Your task to perform on an android device: turn on translation in the chrome app Image 0: 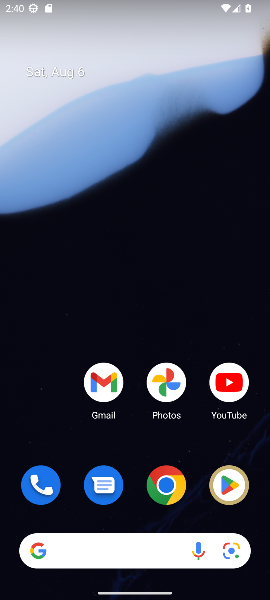
Step 0: press home button
Your task to perform on an android device: turn on translation in the chrome app Image 1: 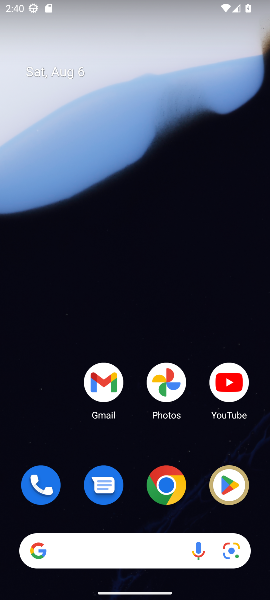
Step 1: click (163, 479)
Your task to perform on an android device: turn on translation in the chrome app Image 2: 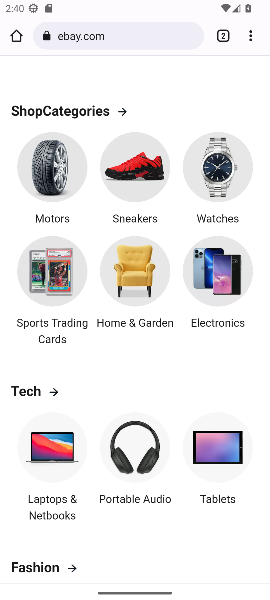
Step 2: click (250, 32)
Your task to perform on an android device: turn on translation in the chrome app Image 3: 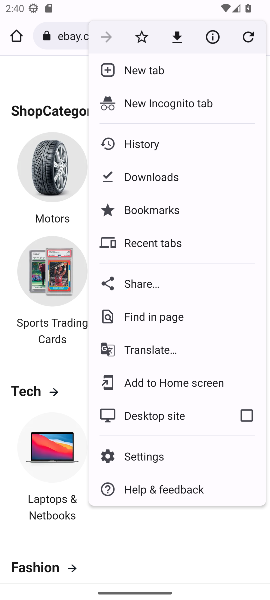
Step 3: click (172, 454)
Your task to perform on an android device: turn on translation in the chrome app Image 4: 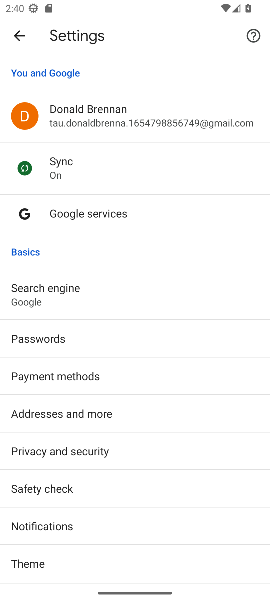
Step 4: drag from (130, 508) to (169, 90)
Your task to perform on an android device: turn on translation in the chrome app Image 5: 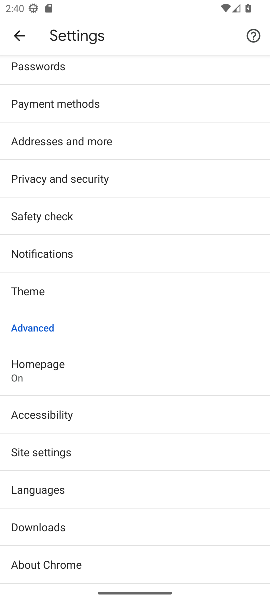
Step 5: click (79, 487)
Your task to perform on an android device: turn on translation in the chrome app Image 6: 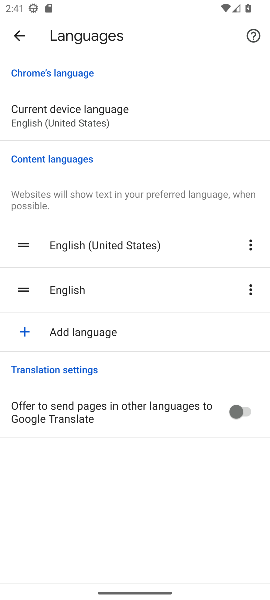
Step 6: click (243, 411)
Your task to perform on an android device: turn on translation in the chrome app Image 7: 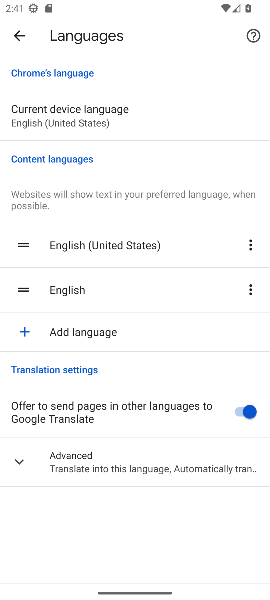
Step 7: task complete